Your task to perform on an android device: star an email in the gmail app Image 0: 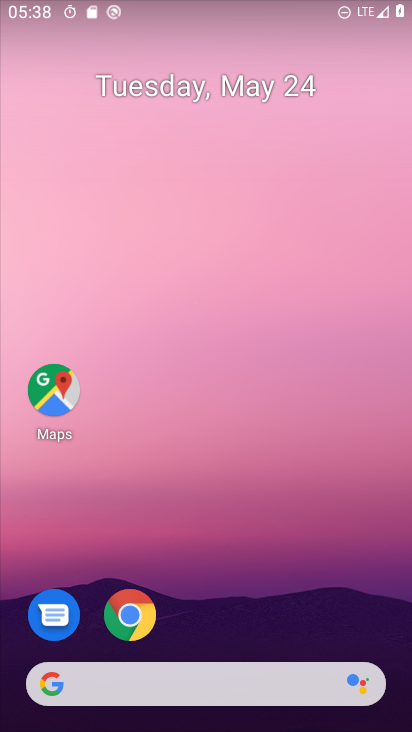
Step 0: drag from (234, 608) to (305, 50)
Your task to perform on an android device: star an email in the gmail app Image 1: 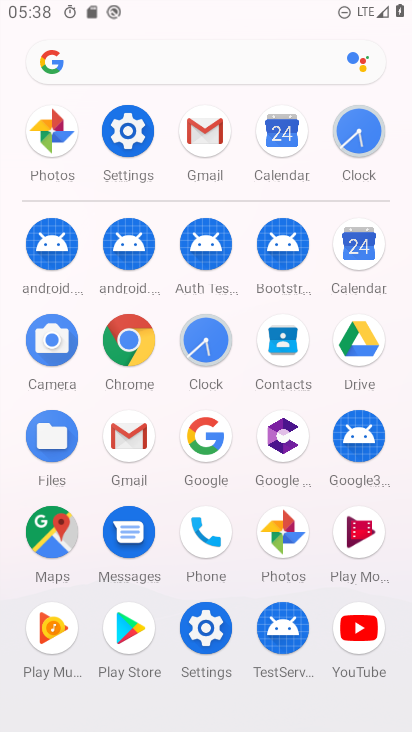
Step 1: click (130, 428)
Your task to perform on an android device: star an email in the gmail app Image 2: 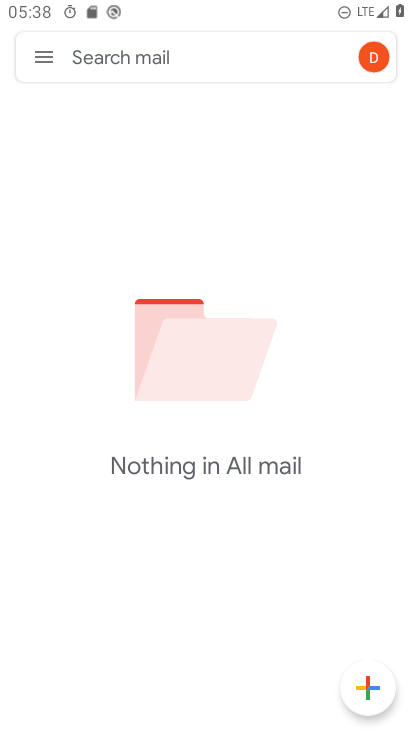
Step 2: task complete